Your task to perform on an android device: Go to Google Image 0: 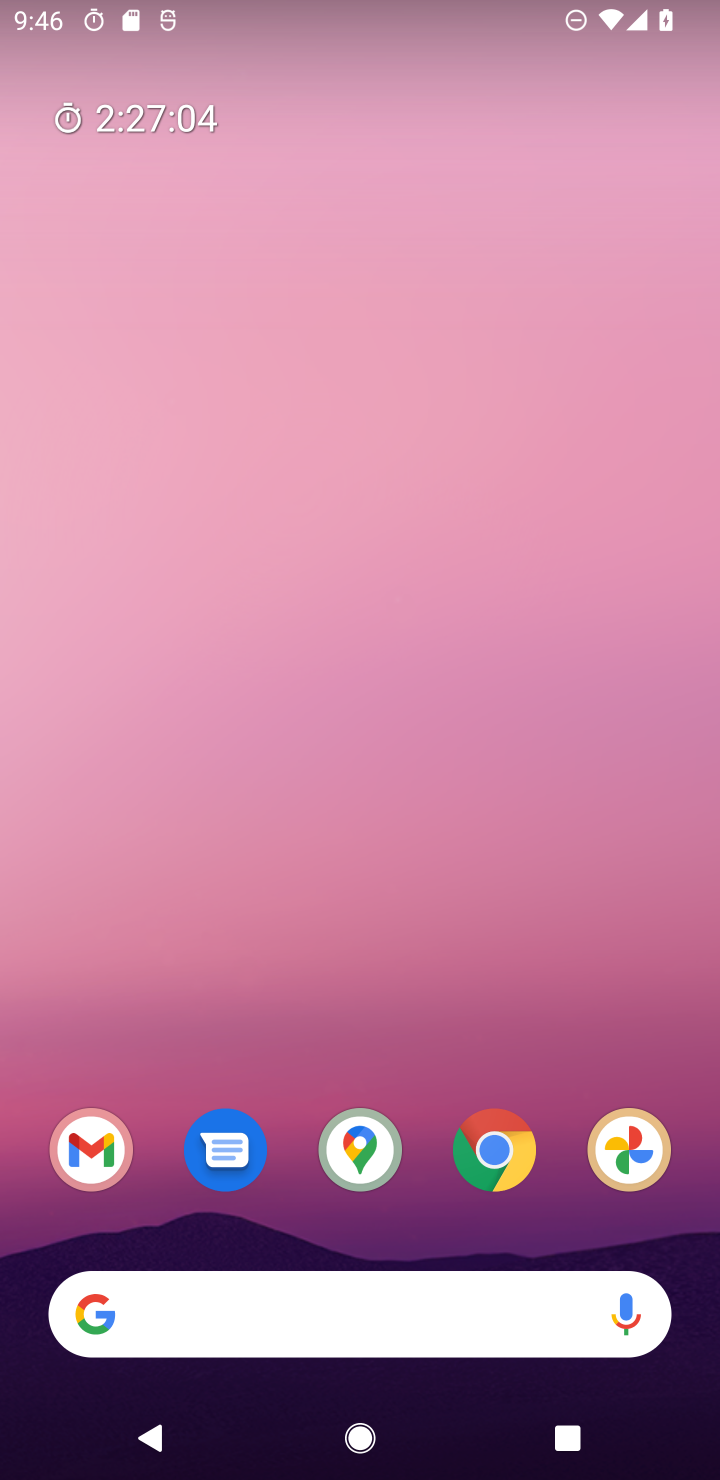
Step 0: drag from (432, 1320) to (442, 0)
Your task to perform on an android device: Go to Google Image 1: 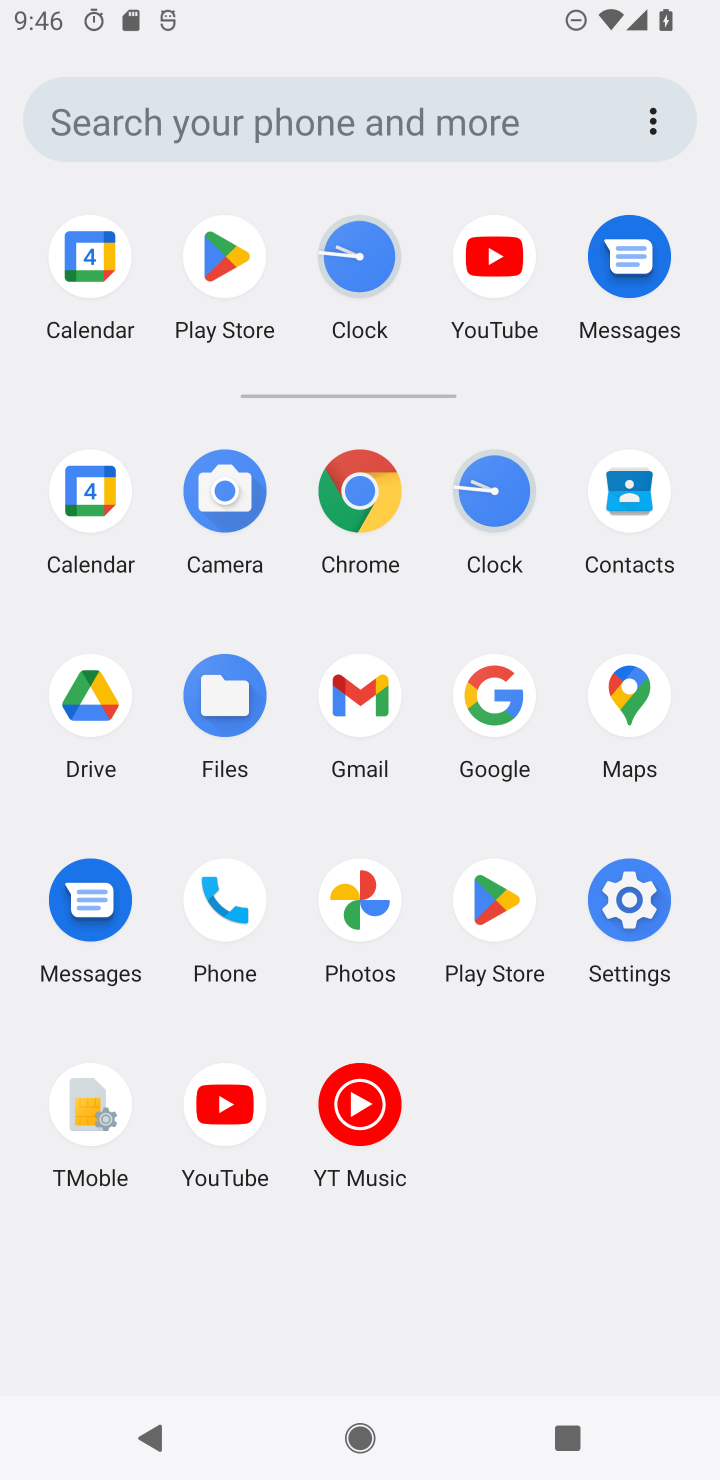
Step 1: click (499, 701)
Your task to perform on an android device: Go to Google Image 2: 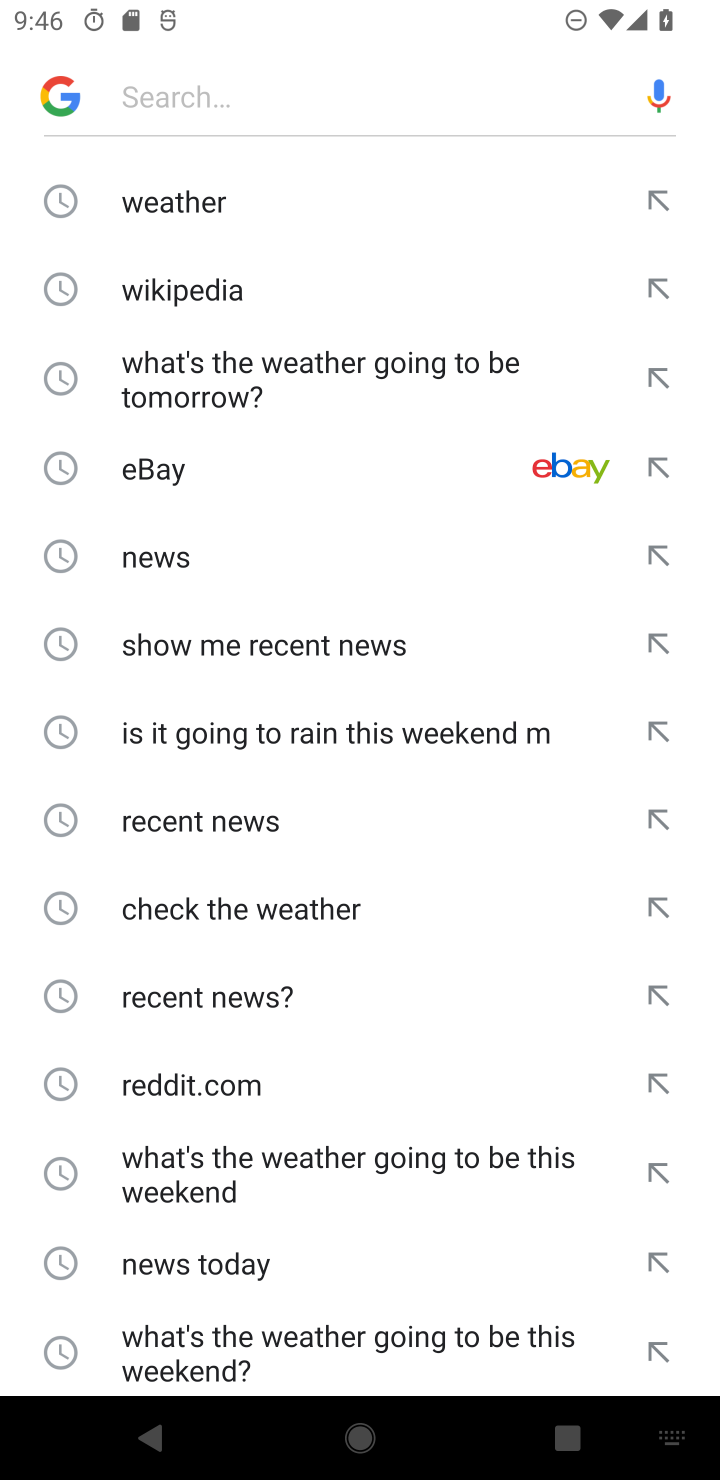
Step 2: task complete